Your task to perform on an android device: open chrome and create a bookmark for the current page Image 0: 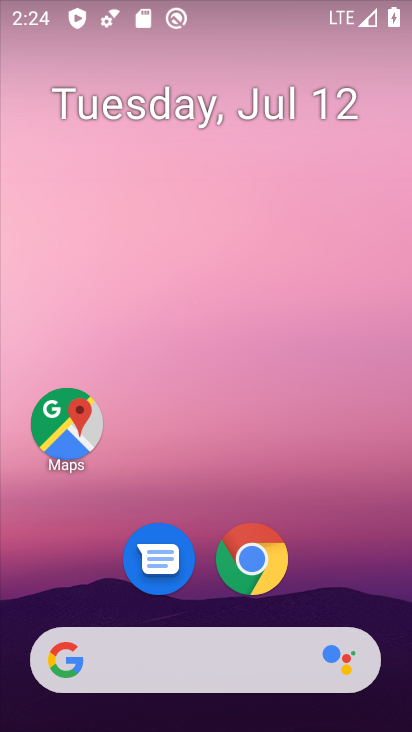
Step 0: drag from (379, 621) to (407, 260)
Your task to perform on an android device: open chrome and create a bookmark for the current page Image 1: 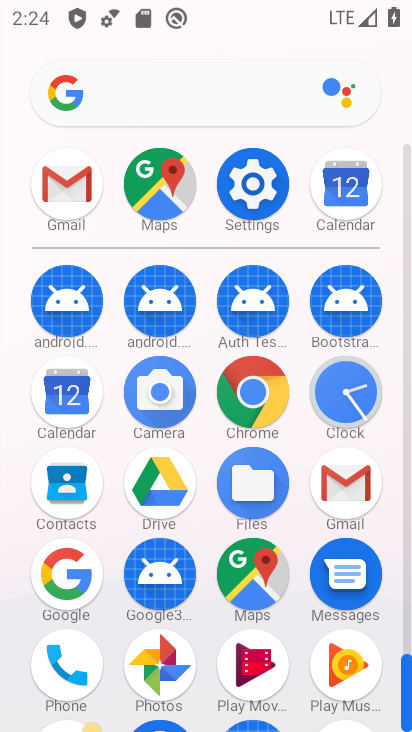
Step 1: click (263, 392)
Your task to perform on an android device: open chrome and create a bookmark for the current page Image 2: 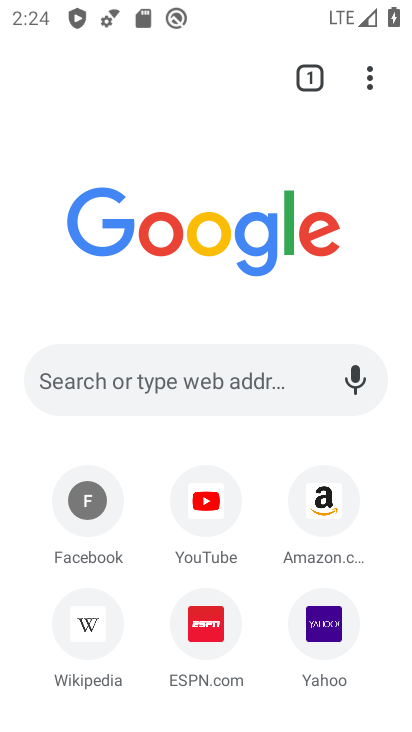
Step 2: click (368, 85)
Your task to perform on an android device: open chrome and create a bookmark for the current page Image 3: 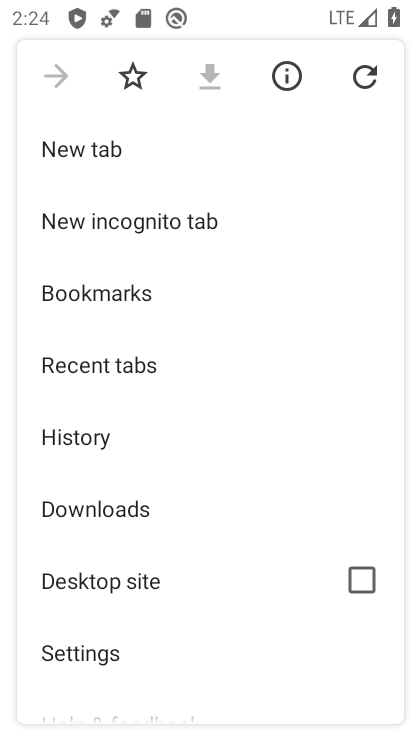
Step 3: click (141, 77)
Your task to perform on an android device: open chrome and create a bookmark for the current page Image 4: 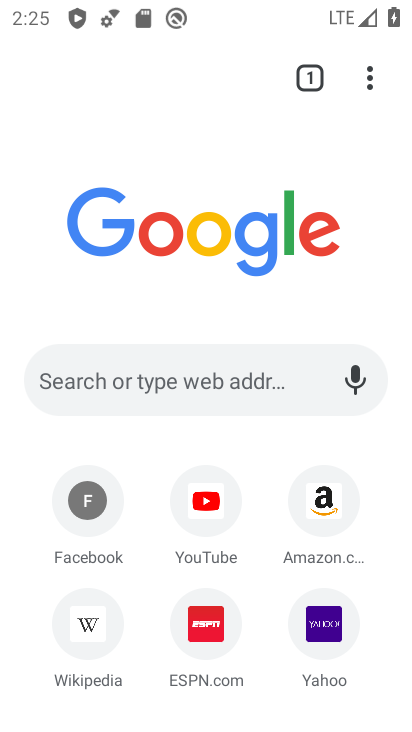
Step 4: task complete